Your task to perform on an android device: change alarm snooze length Image 0: 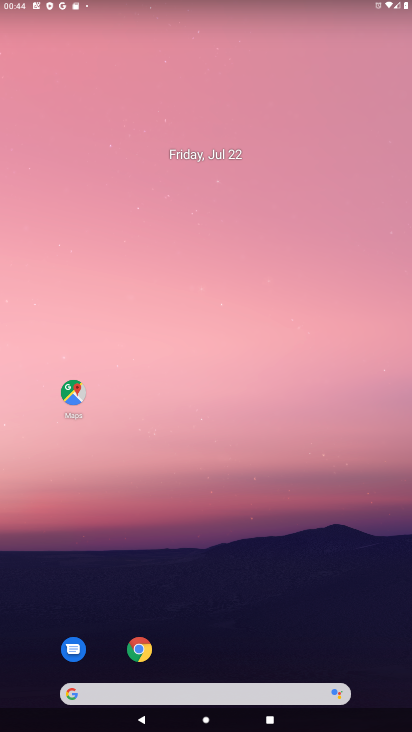
Step 0: drag from (267, 601) to (219, 196)
Your task to perform on an android device: change alarm snooze length Image 1: 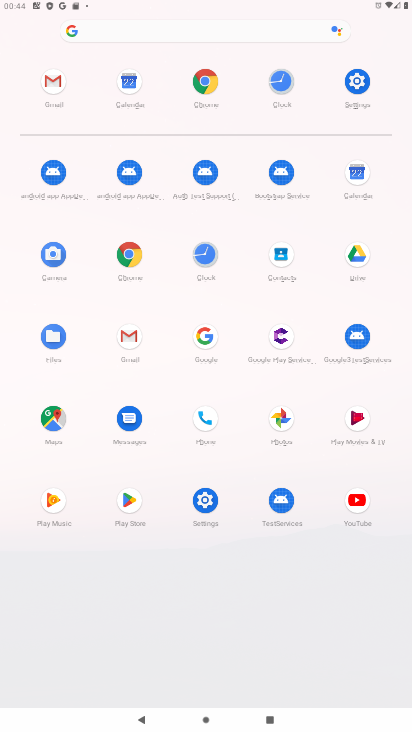
Step 1: click (203, 252)
Your task to perform on an android device: change alarm snooze length Image 2: 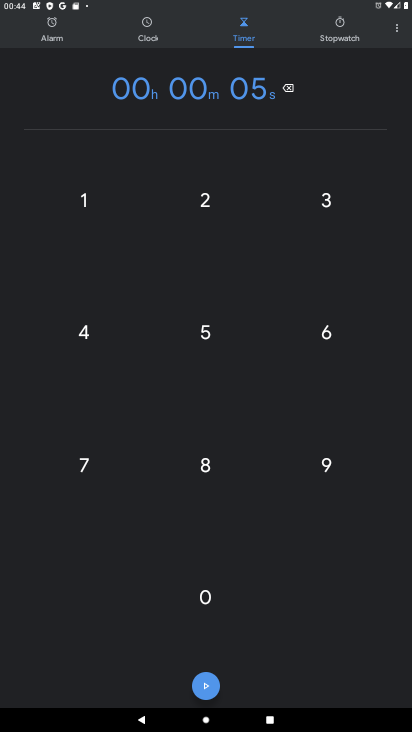
Step 2: click (108, 211)
Your task to perform on an android device: change alarm snooze length Image 3: 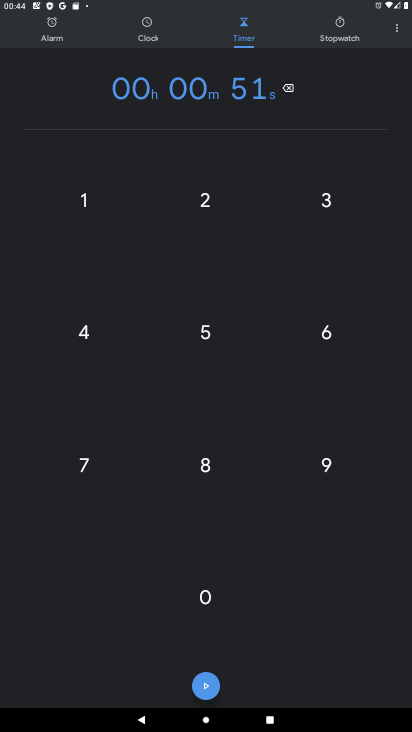
Step 3: click (394, 28)
Your task to perform on an android device: change alarm snooze length Image 4: 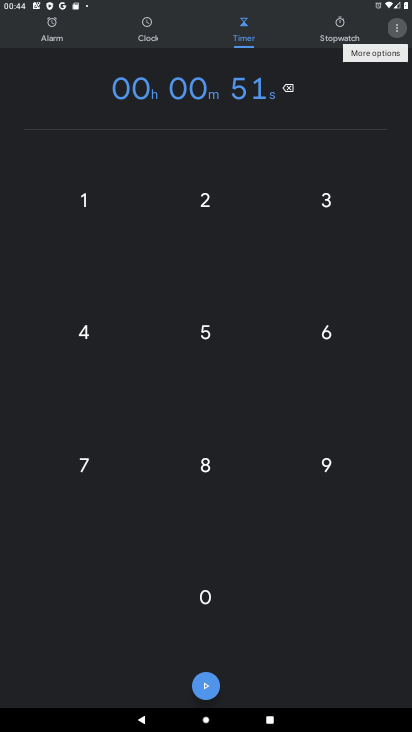
Step 4: click (394, 30)
Your task to perform on an android device: change alarm snooze length Image 5: 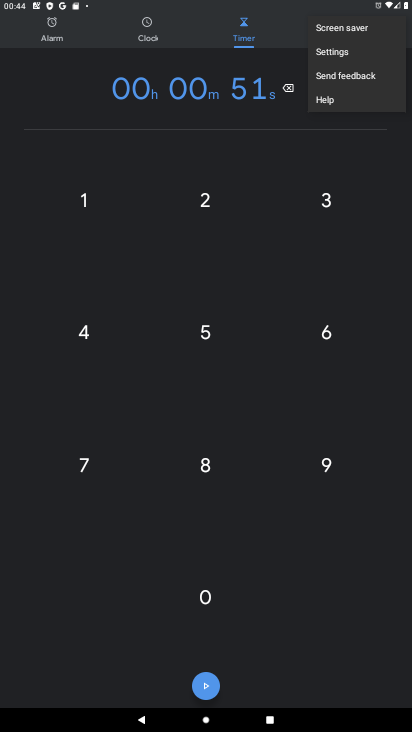
Step 5: click (355, 54)
Your task to perform on an android device: change alarm snooze length Image 6: 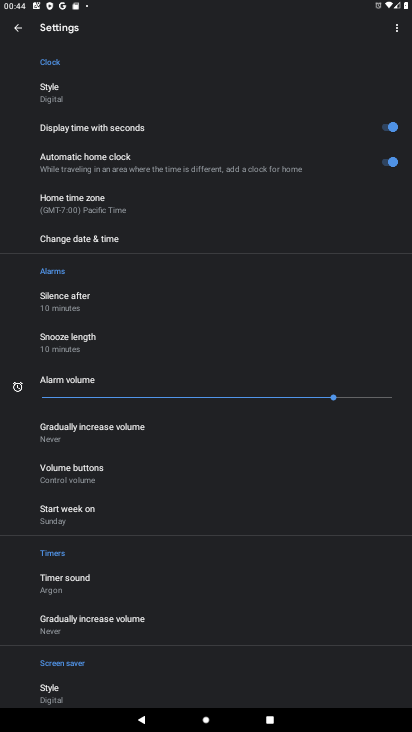
Step 6: drag from (150, 585) to (177, 142)
Your task to perform on an android device: change alarm snooze length Image 7: 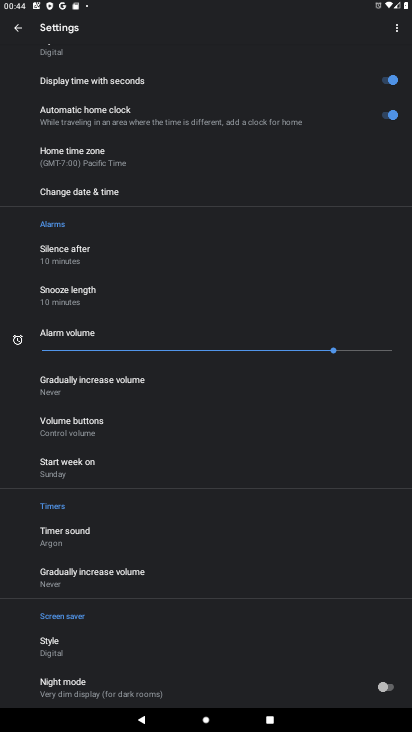
Step 7: drag from (167, 636) to (206, 199)
Your task to perform on an android device: change alarm snooze length Image 8: 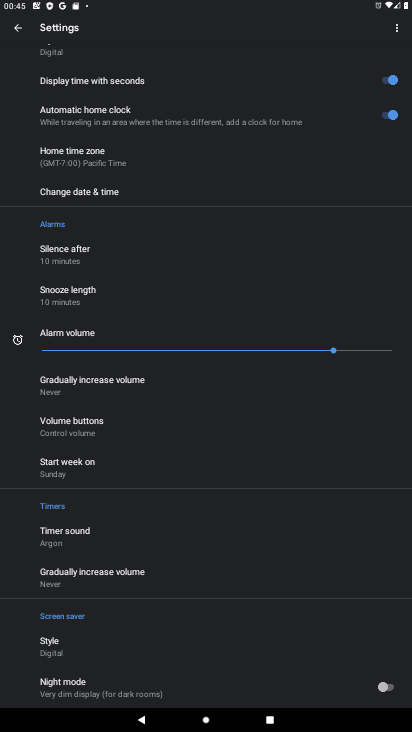
Step 8: click (103, 302)
Your task to perform on an android device: change alarm snooze length Image 9: 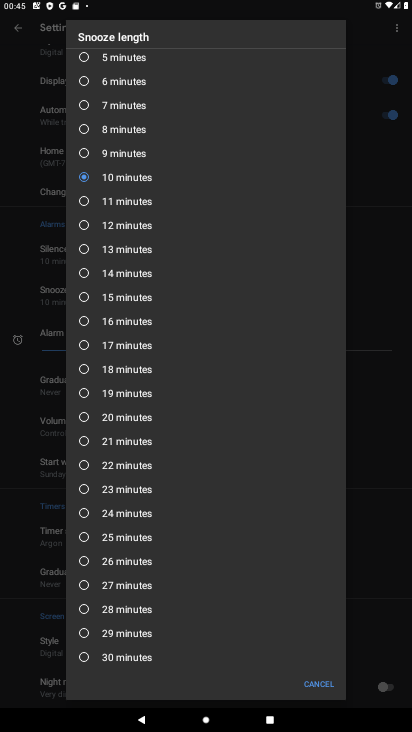
Step 9: click (116, 208)
Your task to perform on an android device: change alarm snooze length Image 10: 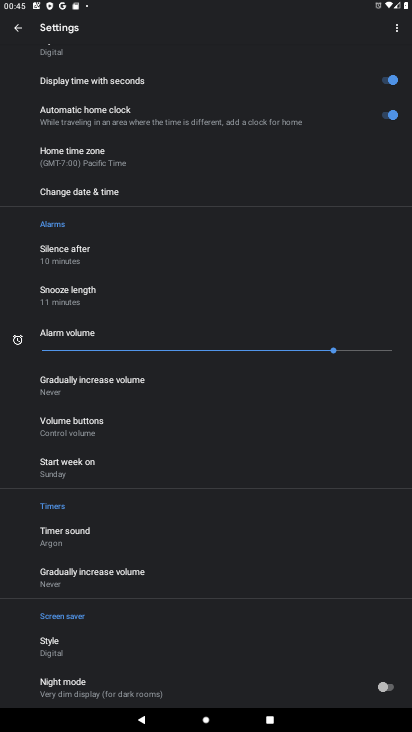
Step 10: task complete